Your task to perform on an android device: turn on bluetooth scan Image 0: 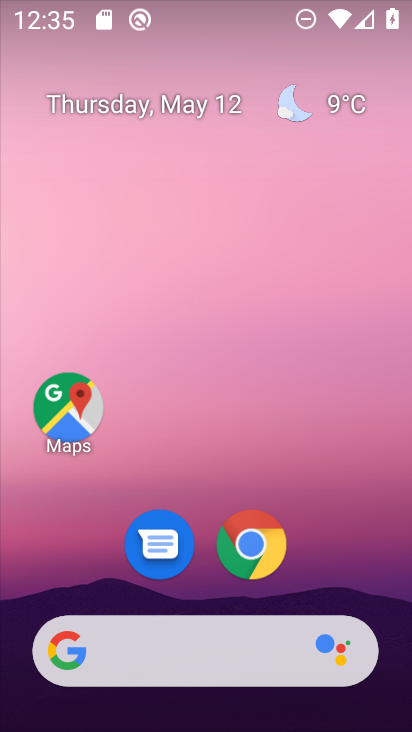
Step 0: drag from (213, 723) to (235, 124)
Your task to perform on an android device: turn on bluetooth scan Image 1: 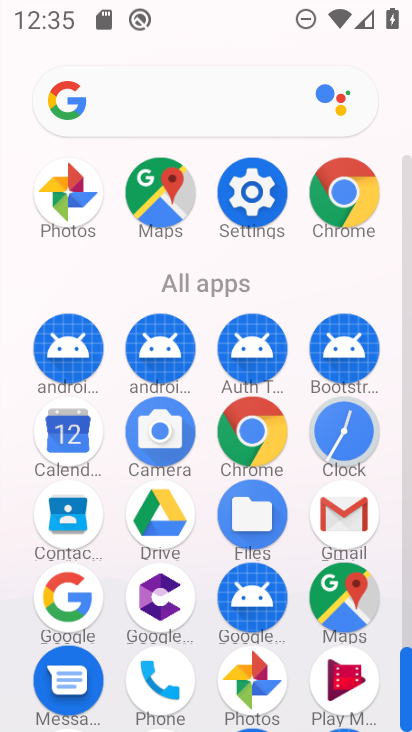
Step 1: click (251, 191)
Your task to perform on an android device: turn on bluetooth scan Image 2: 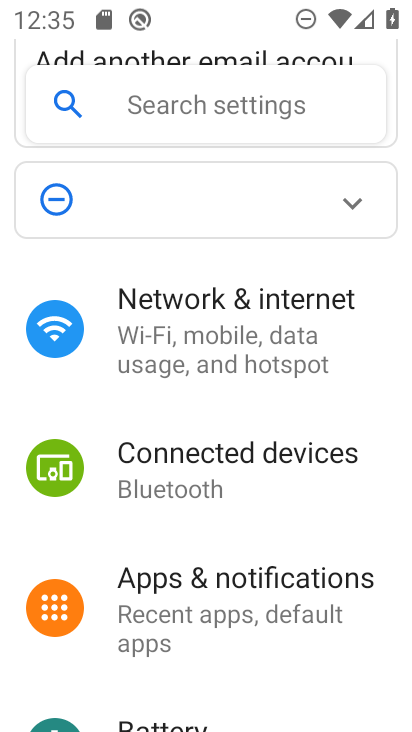
Step 2: drag from (245, 676) to (234, 201)
Your task to perform on an android device: turn on bluetooth scan Image 3: 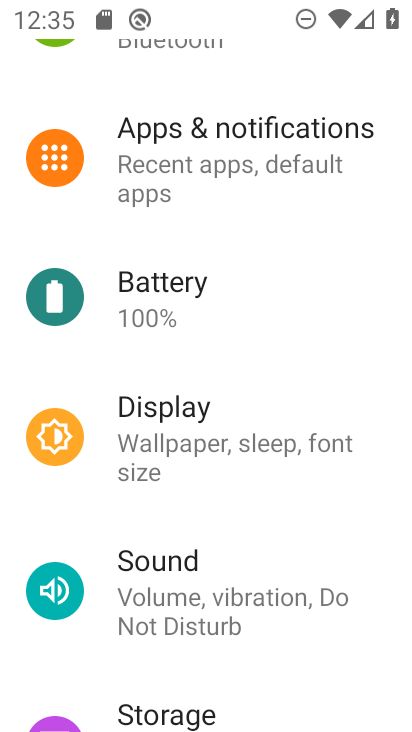
Step 3: drag from (162, 675) to (162, 344)
Your task to perform on an android device: turn on bluetooth scan Image 4: 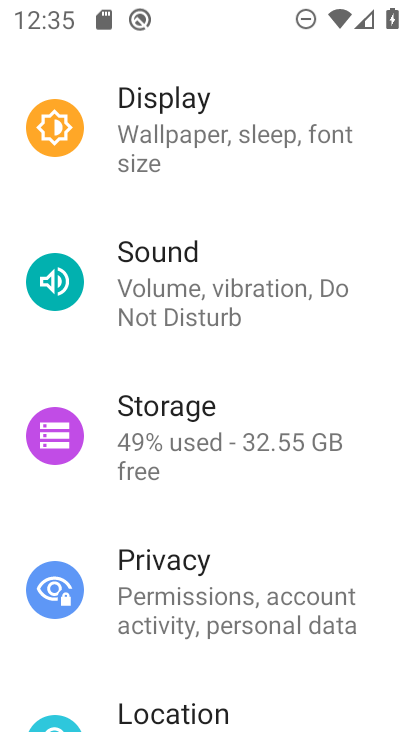
Step 4: drag from (169, 670) to (183, 387)
Your task to perform on an android device: turn on bluetooth scan Image 5: 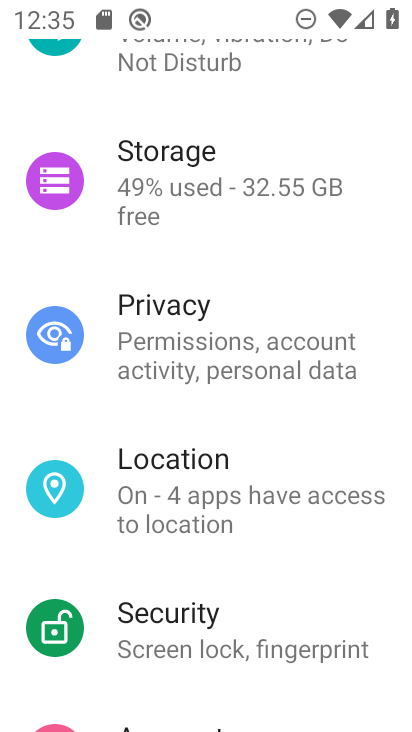
Step 5: click (184, 490)
Your task to perform on an android device: turn on bluetooth scan Image 6: 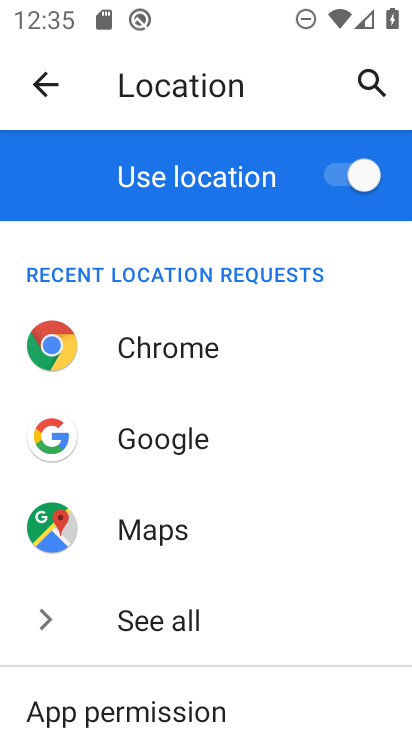
Step 6: drag from (260, 691) to (267, 265)
Your task to perform on an android device: turn on bluetooth scan Image 7: 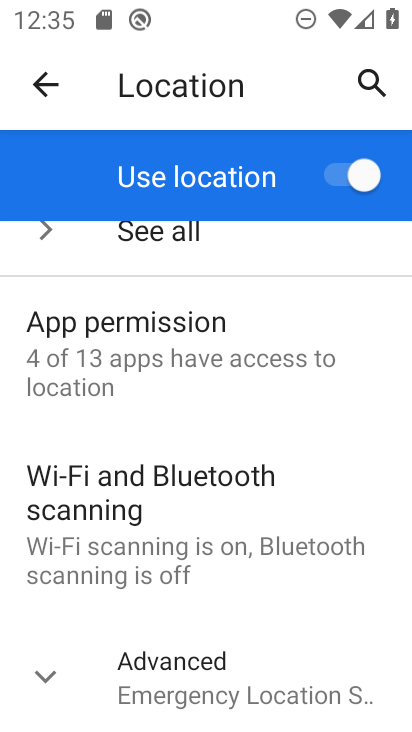
Step 7: click (96, 513)
Your task to perform on an android device: turn on bluetooth scan Image 8: 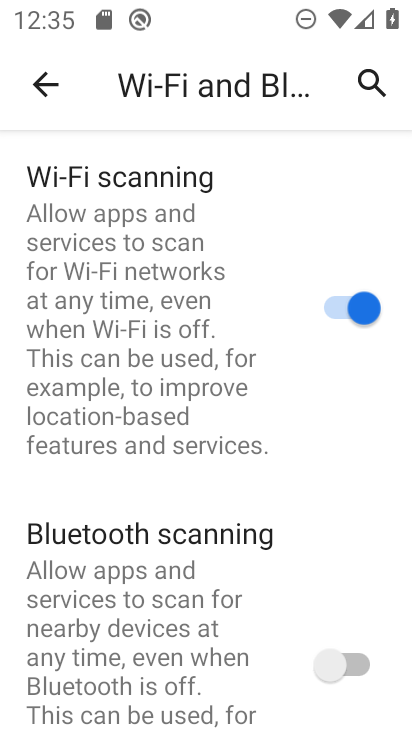
Step 8: click (357, 665)
Your task to perform on an android device: turn on bluetooth scan Image 9: 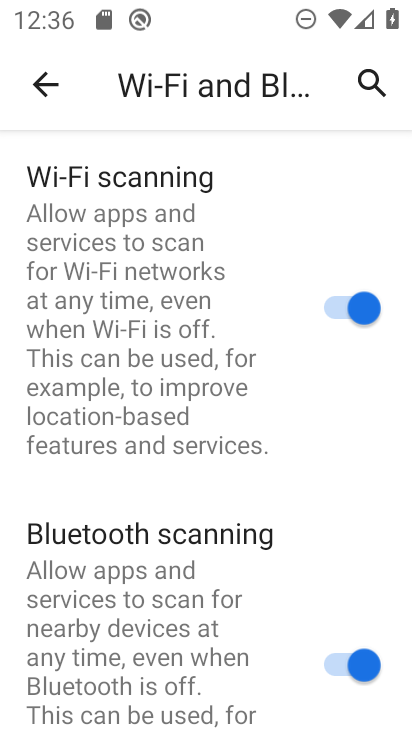
Step 9: task complete